Your task to perform on an android device: Open Google Chrome Image 0: 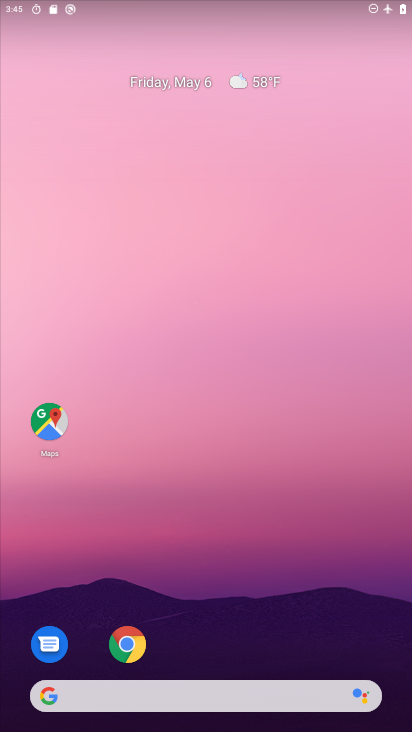
Step 0: click (128, 645)
Your task to perform on an android device: Open Google Chrome Image 1: 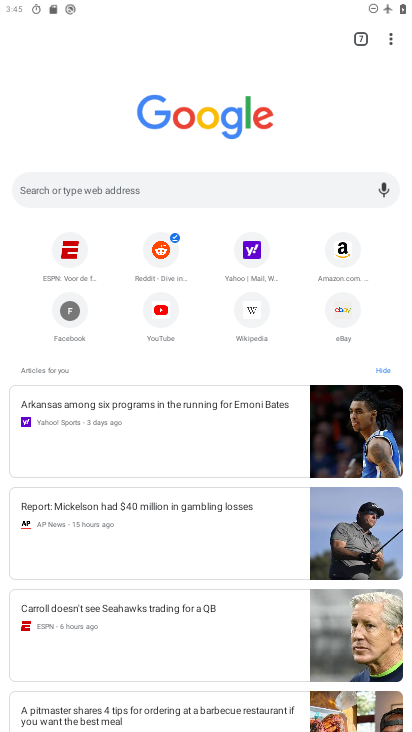
Step 1: task complete